Your task to perform on an android device: Go to settings Image 0: 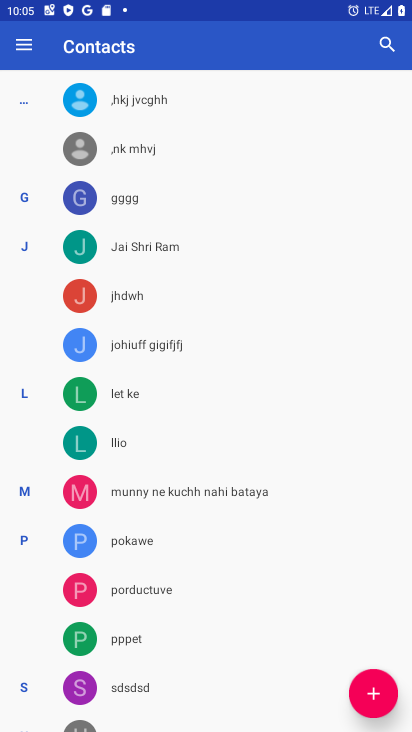
Step 0: press home button
Your task to perform on an android device: Go to settings Image 1: 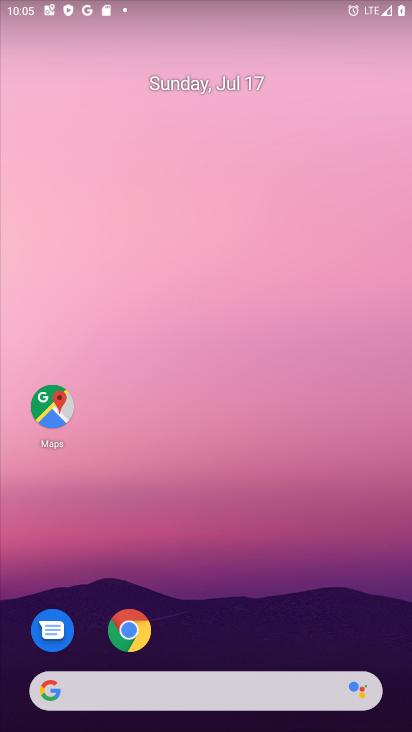
Step 1: drag from (237, 657) to (275, 63)
Your task to perform on an android device: Go to settings Image 2: 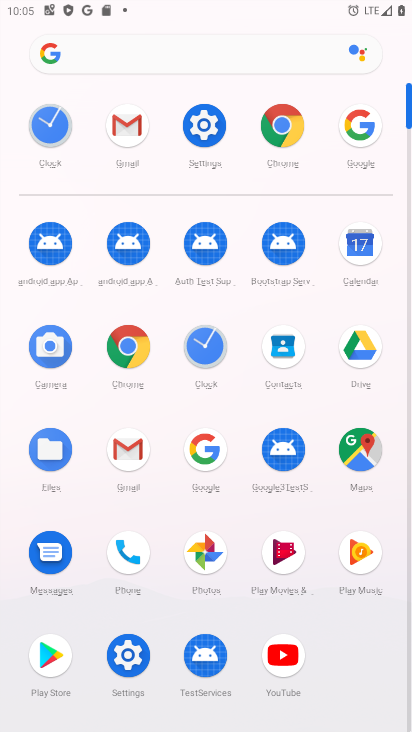
Step 2: click (201, 118)
Your task to perform on an android device: Go to settings Image 3: 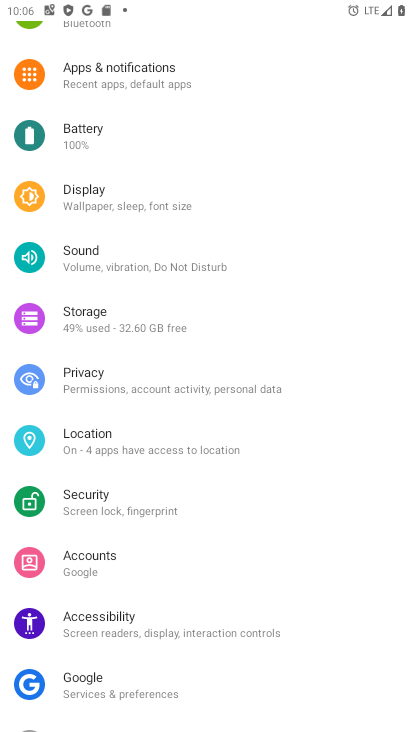
Step 3: task complete